Your task to perform on an android device: Search for the best rated 4k tvs on Walmart. Image 0: 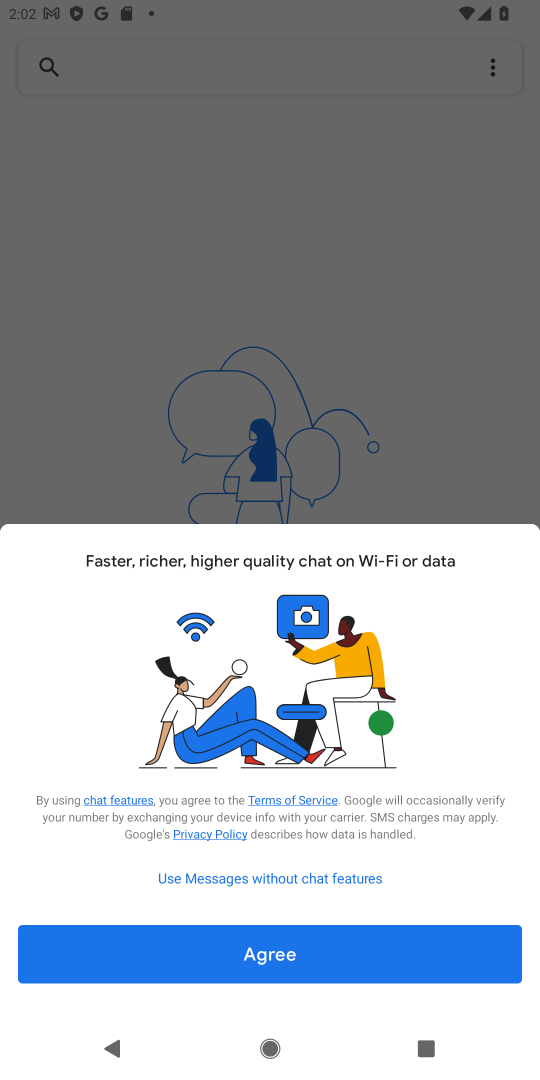
Step 0: press home button
Your task to perform on an android device: Search for the best rated 4k tvs on Walmart. Image 1: 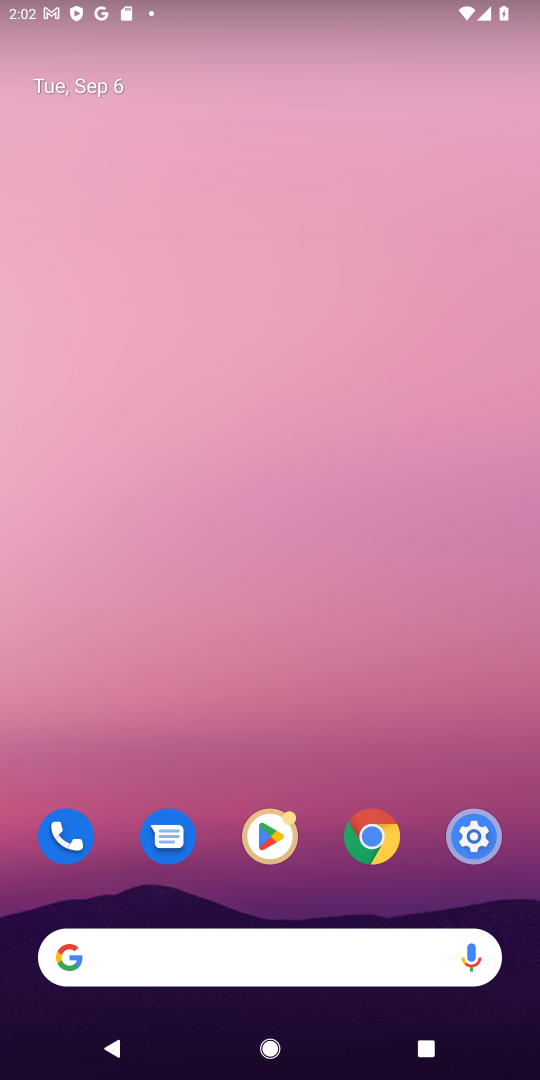
Step 1: click (267, 951)
Your task to perform on an android device: Search for the best rated 4k tvs on Walmart. Image 2: 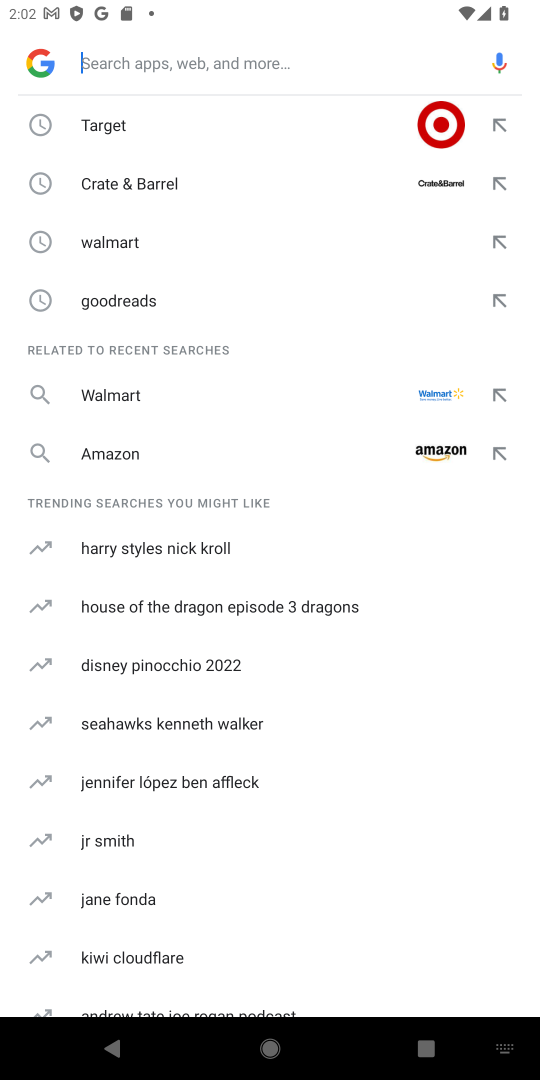
Step 2: click (89, 235)
Your task to perform on an android device: Search for the best rated 4k tvs on Walmart. Image 3: 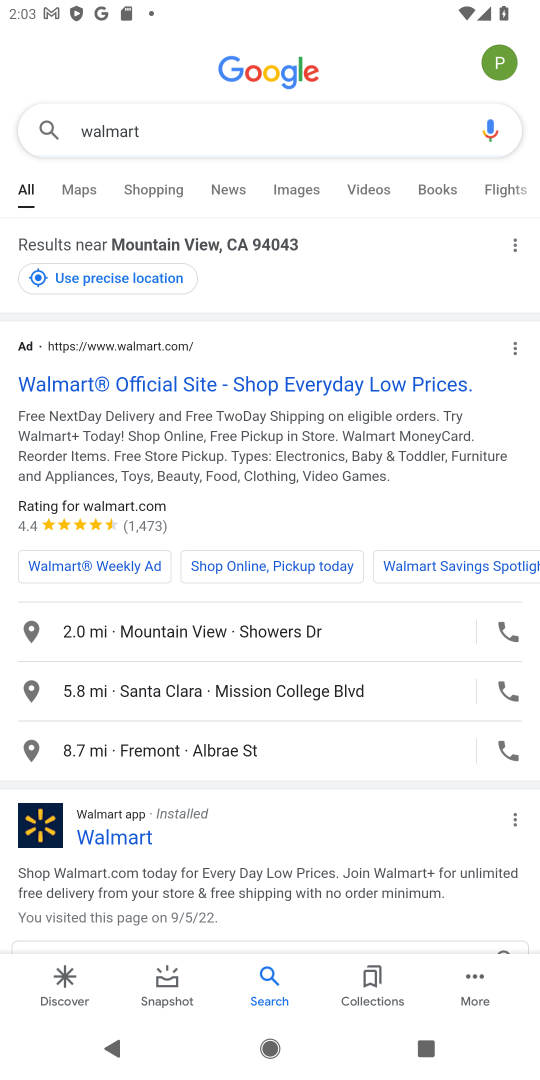
Step 3: click (91, 379)
Your task to perform on an android device: Search for the best rated 4k tvs on Walmart. Image 4: 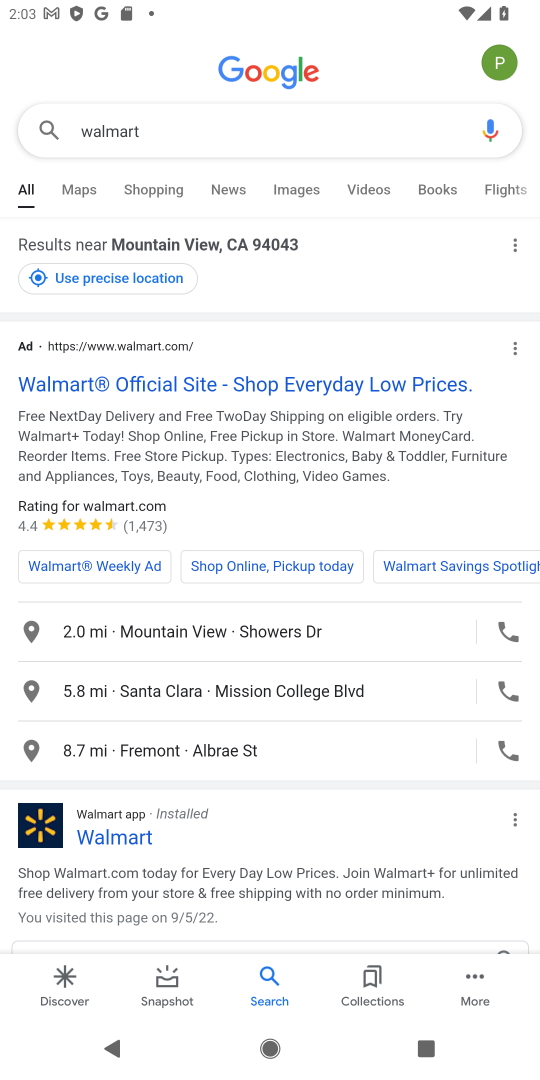
Step 4: click (91, 379)
Your task to perform on an android device: Search for the best rated 4k tvs on Walmart. Image 5: 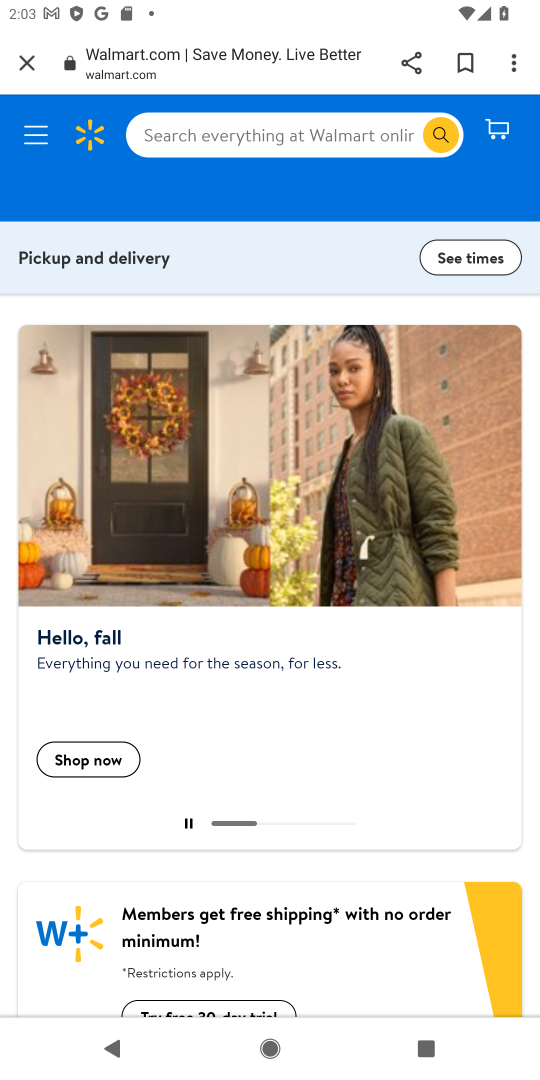
Step 5: click (236, 129)
Your task to perform on an android device: Search for the best rated 4k tvs on Walmart. Image 6: 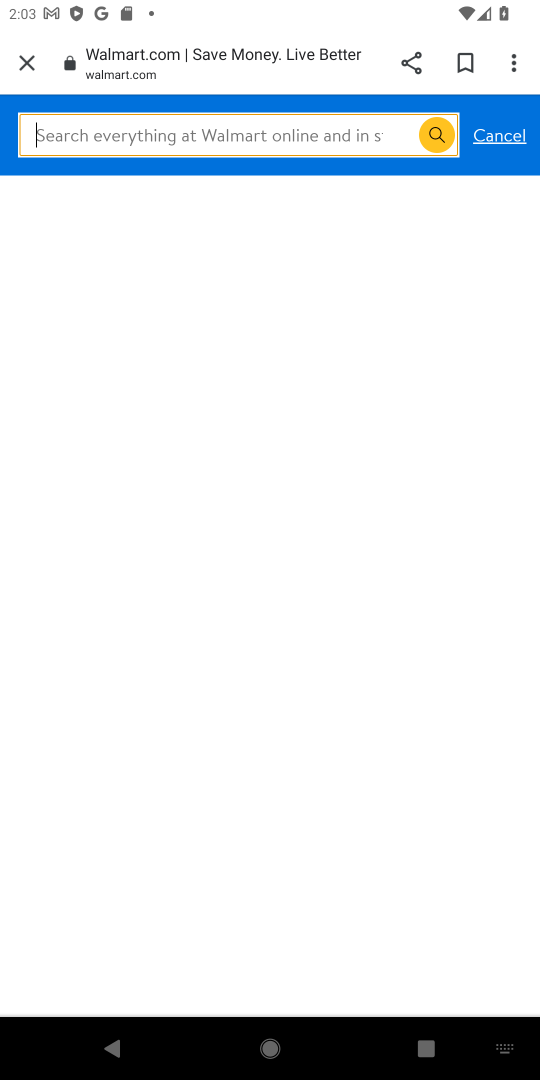
Step 6: type "best eated 4k tvs"
Your task to perform on an android device: Search for the best rated 4k tvs on Walmart. Image 7: 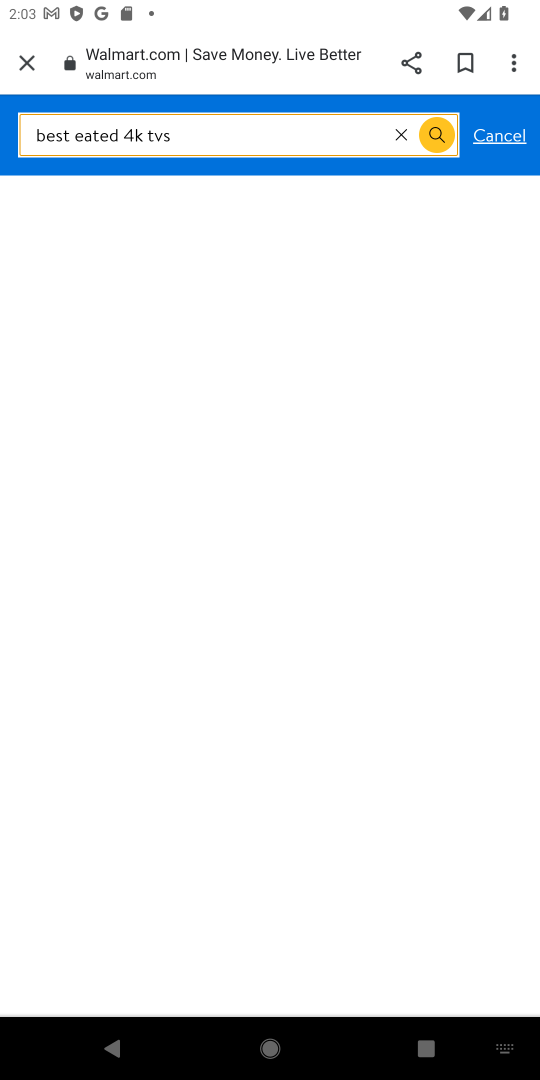
Step 7: click (428, 126)
Your task to perform on an android device: Search for the best rated 4k tvs on Walmart. Image 8: 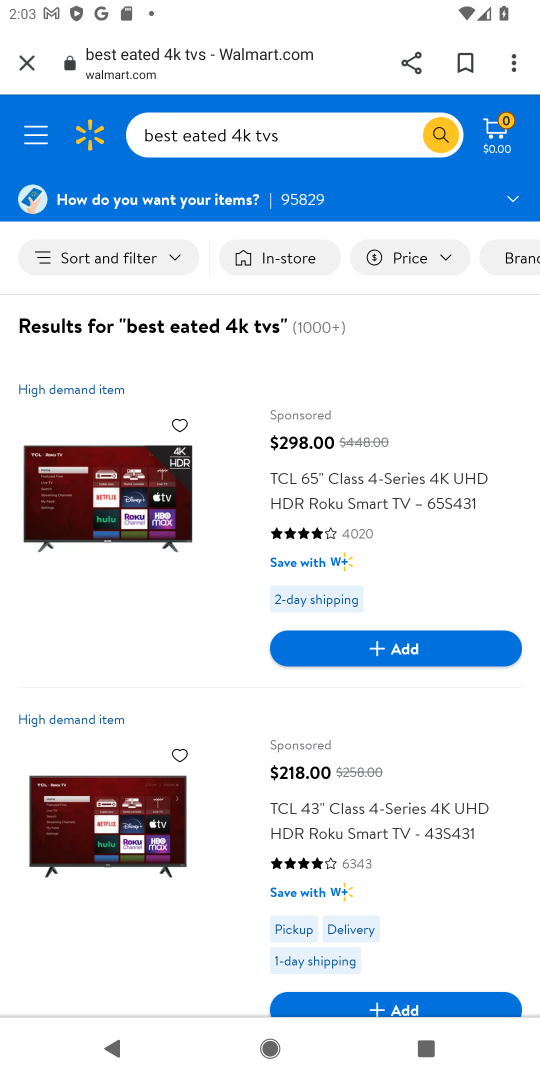
Step 8: task complete